Your task to perform on an android device: Add razer blade to the cart on costco, then select checkout. Image 0: 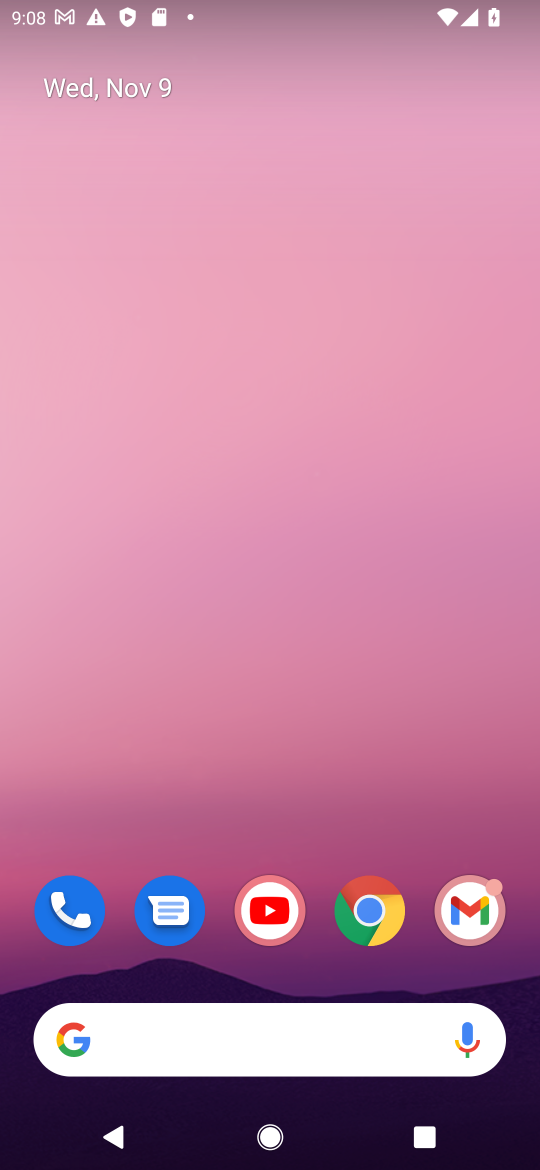
Step 0: click (374, 916)
Your task to perform on an android device: Add razer blade to the cart on costco, then select checkout. Image 1: 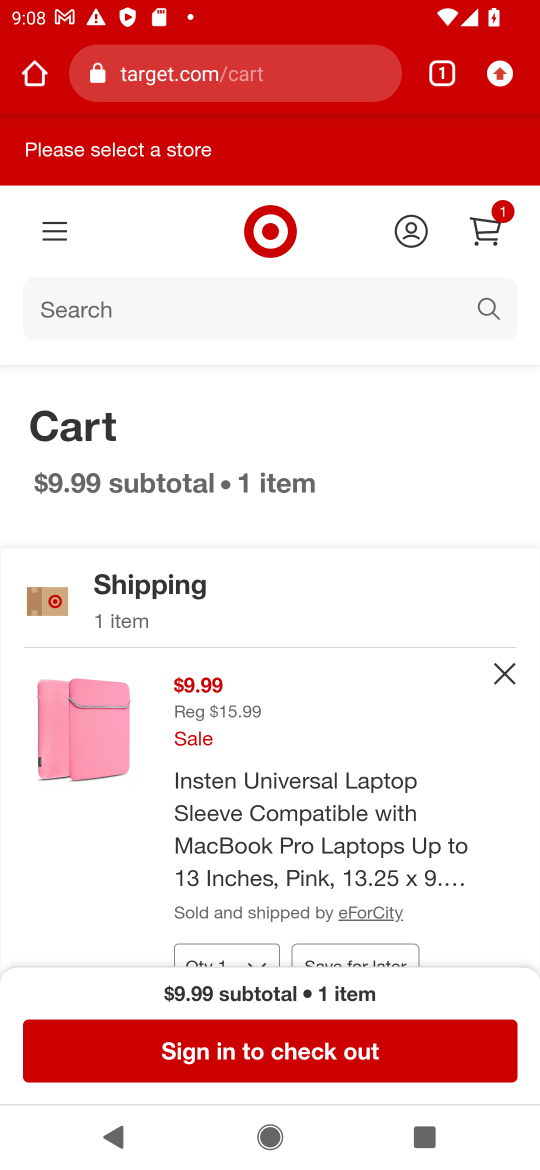
Step 1: click (235, 68)
Your task to perform on an android device: Add razer blade to the cart on costco, then select checkout. Image 2: 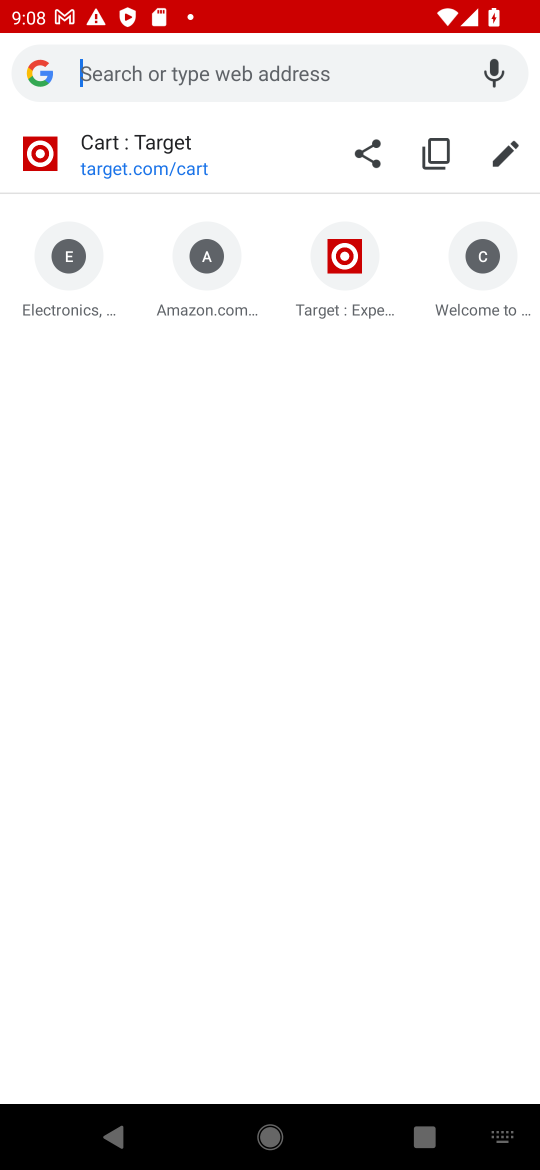
Step 2: type "costco.com"
Your task to perform on an android device: Add razer blade to the cart on costco, then select checkout. Image 3: 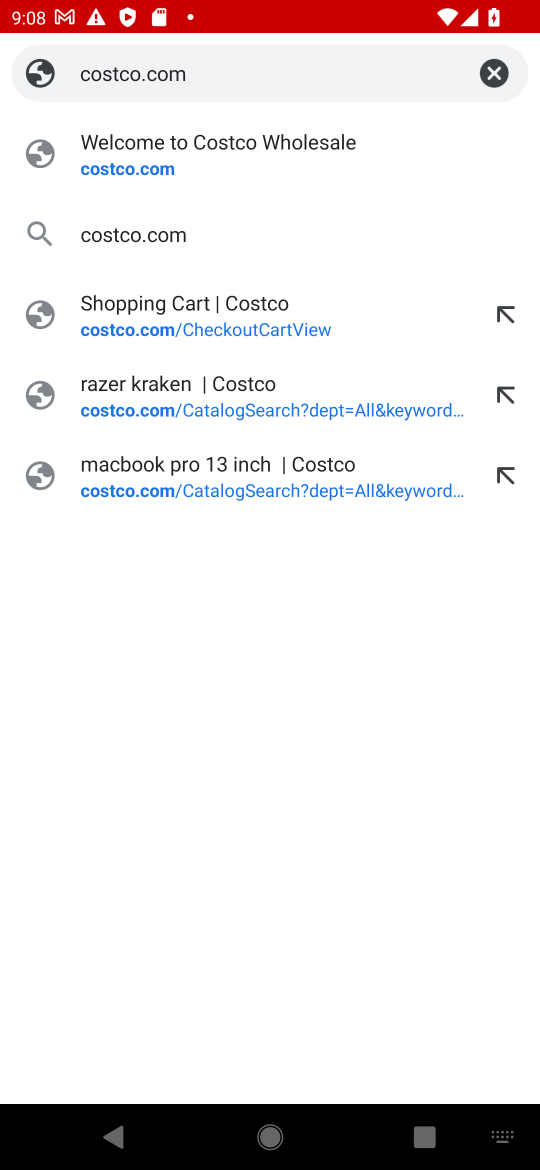
Step 3: click (115, 175)
Your task to perform on an android device: Add razer blade to the cart on costco, then select checkout. Image 4: 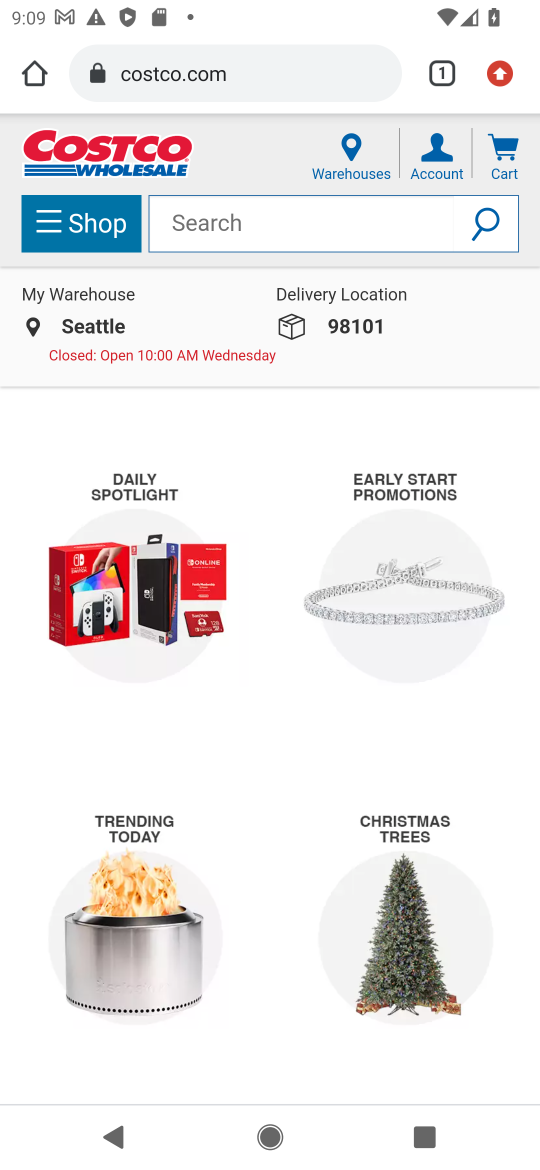
Step 4: click (225, 218)
Your task to perform on an android device: Add razer blade to the cart on costco, then select checkout. Image 5: 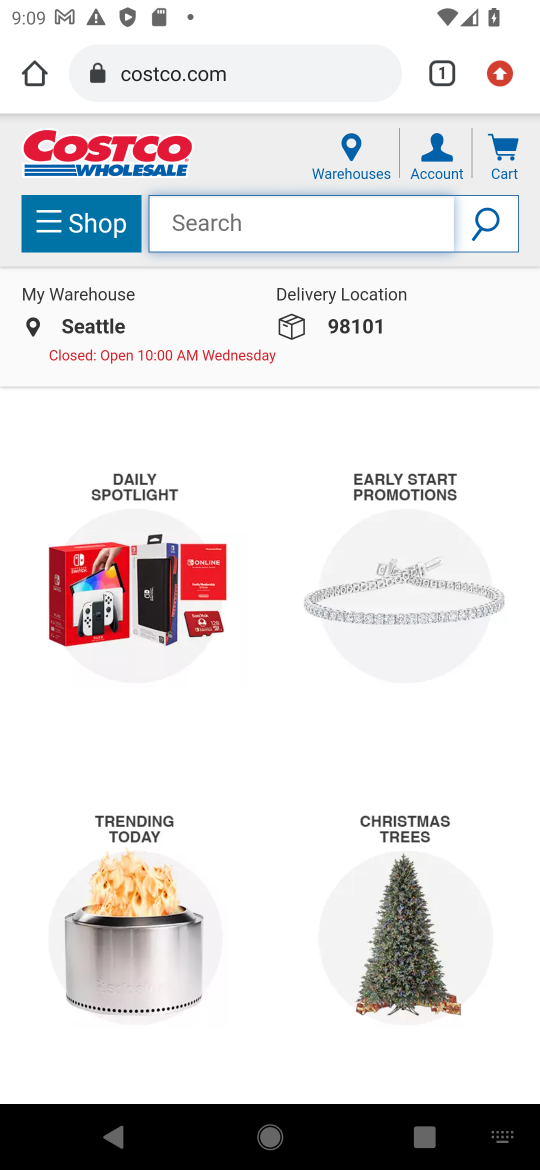
Step 5: type "razer blade"
Your task to perform on an android device: Add razer blade to the cart on costco, then select checkout. Image 6: 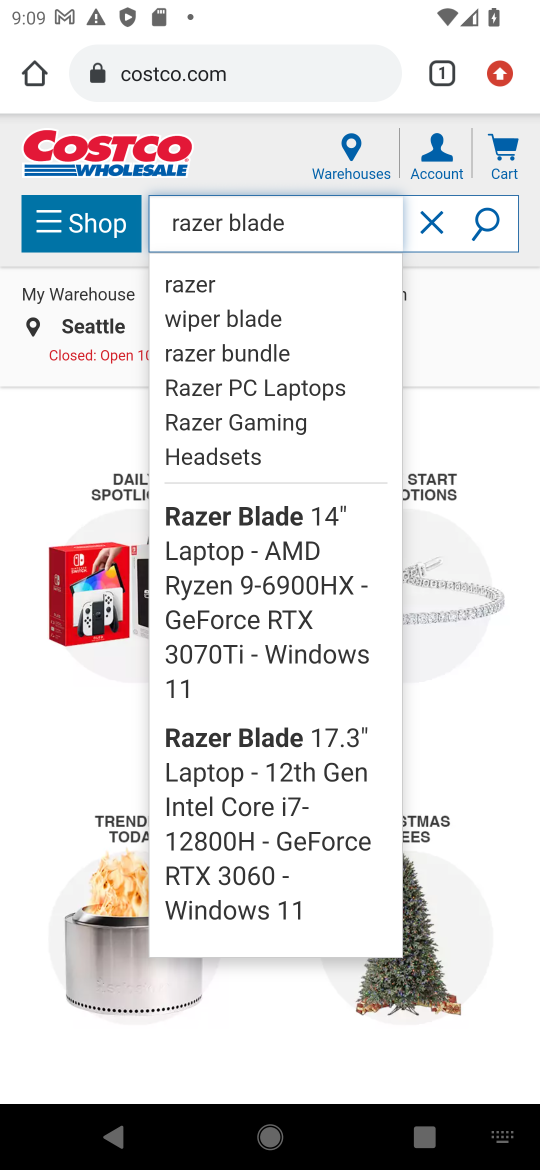
Step 6: click (480, 227)
Your task to perform on an android device: Add razer blade to the cart on costco, then select checkout. Image 7: 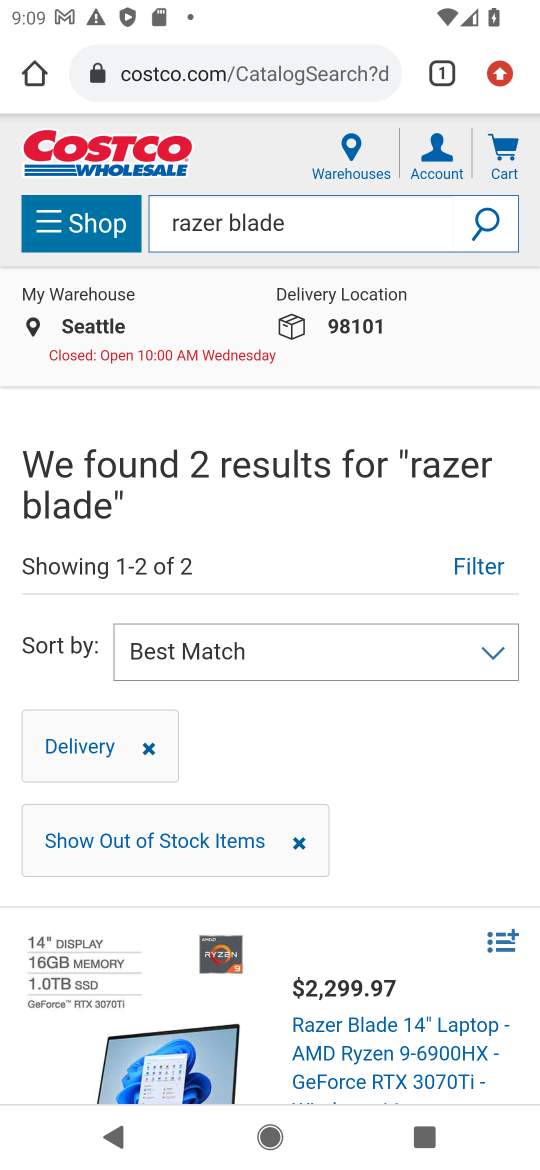
Step 7: drag from (260, 785) to (260, 516)
Your task to perform on an android device: Add razer blade to the cart on costco, then select checkout. Image 8: 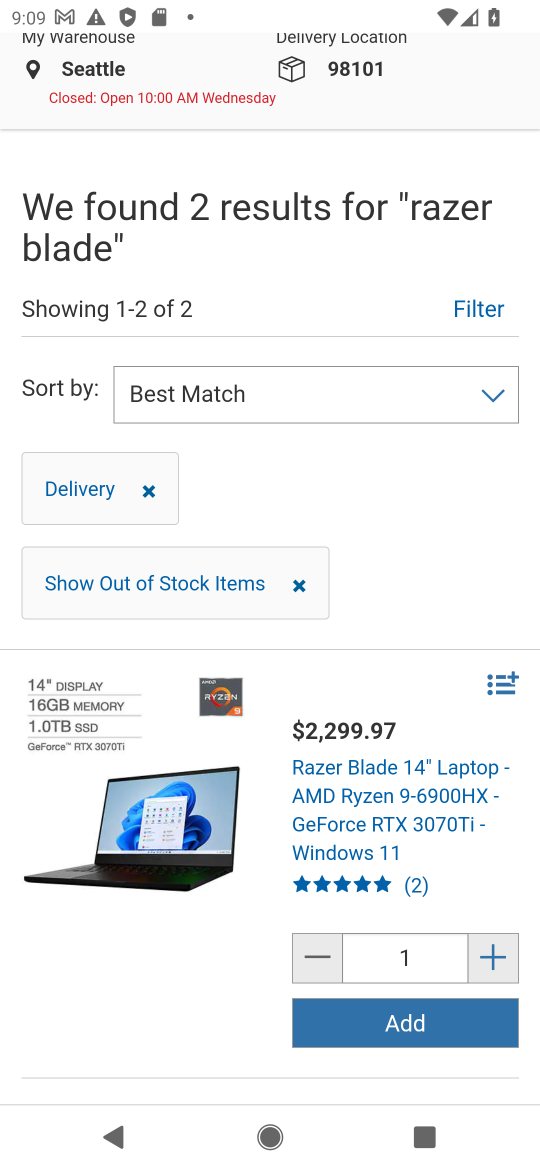
Step 8: click (334, 846)
Your task to perform on an android device: Add razer blade to the cart on costco, then select checkout. Image 9: 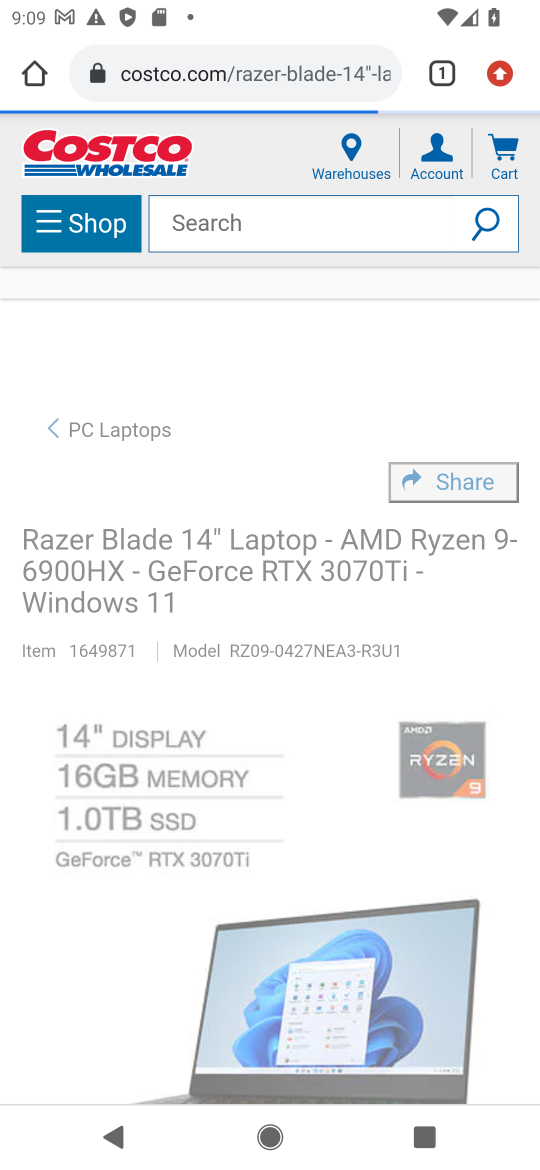
Step 9: drag from (322, 903) to (303, 424)
Your task to perform on an android device: Add razer blade to the cart on costco, then select checkout. Image 10: 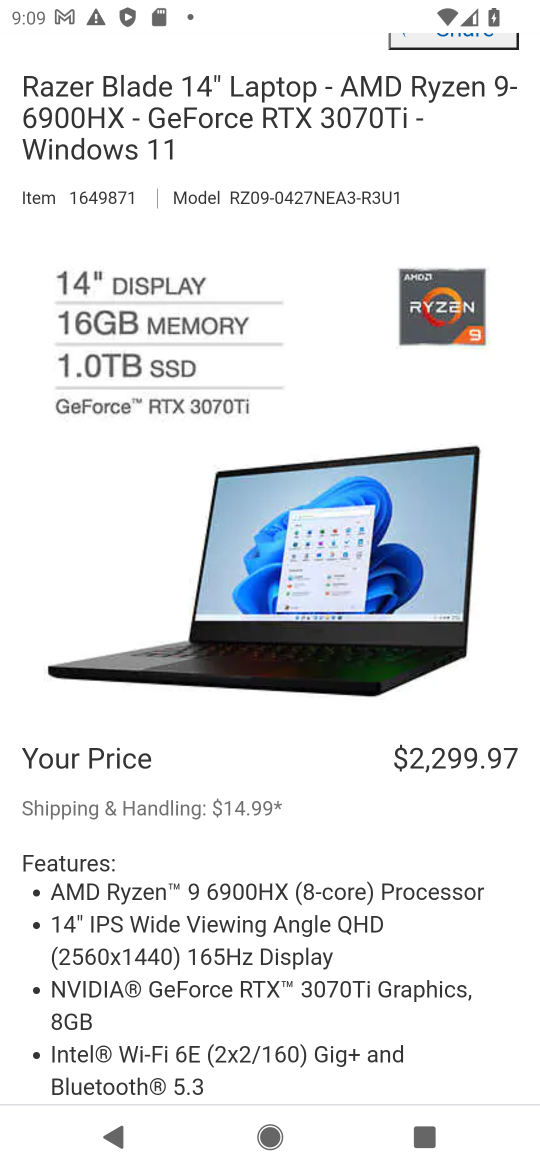
Step 10: drag from (307, 903) to (295, 460)
Your task to perform on an android device: Add razer blade to the cart on costco, then select checkout. Image 11: 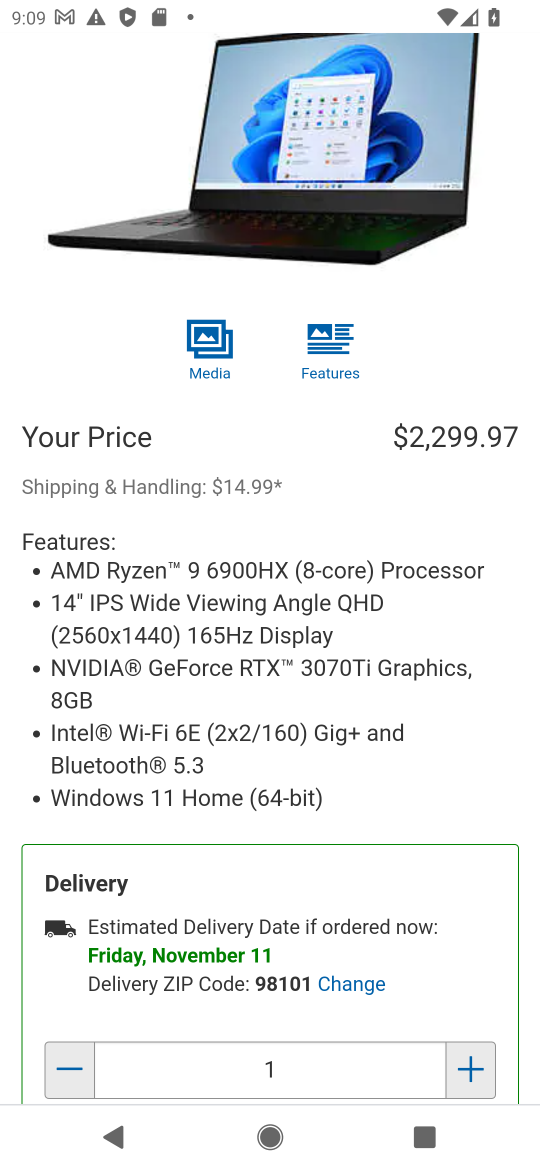
Step 11: drag from (340, 920) to (330, 512)
Your task to perform on an android device: Add razer blade to the cart on costco, then select checkout. Image 12: 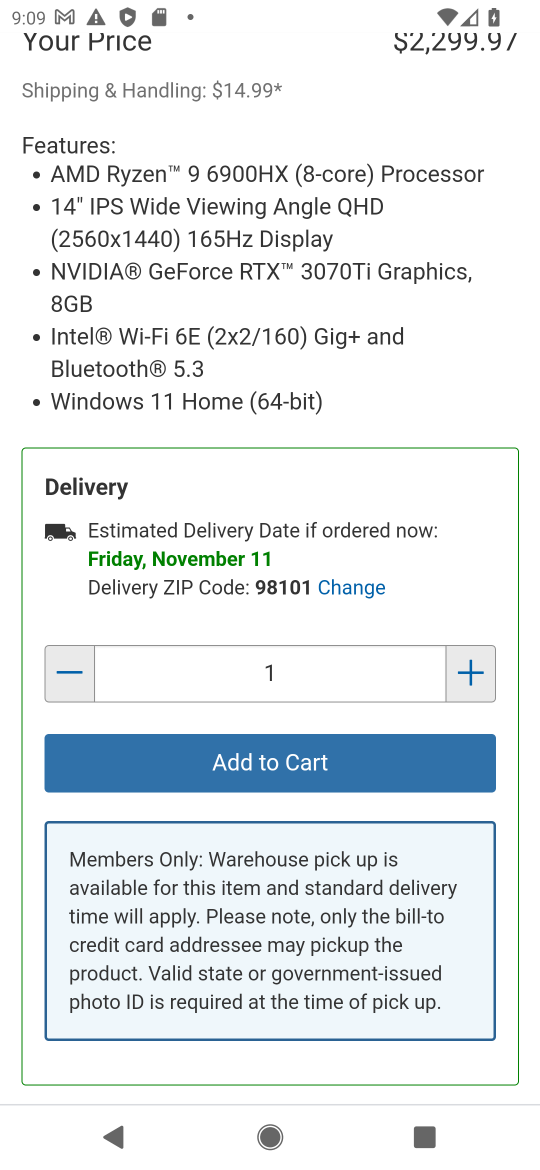
Step 12: click (259, 771)
Your task to perform on an android device: Add razer blade to the cart on costco, then select checkout. Image 13: 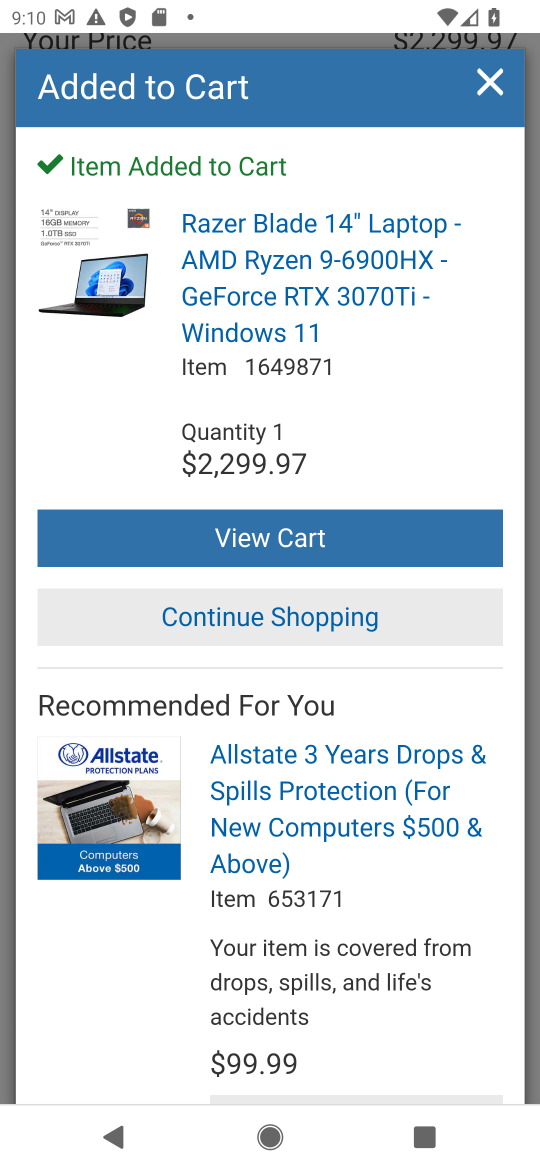
Step 13: click (254, 533)
Your task to perform on an android device: Add razer blade to the cart on costco, then select checkout. Image 14: 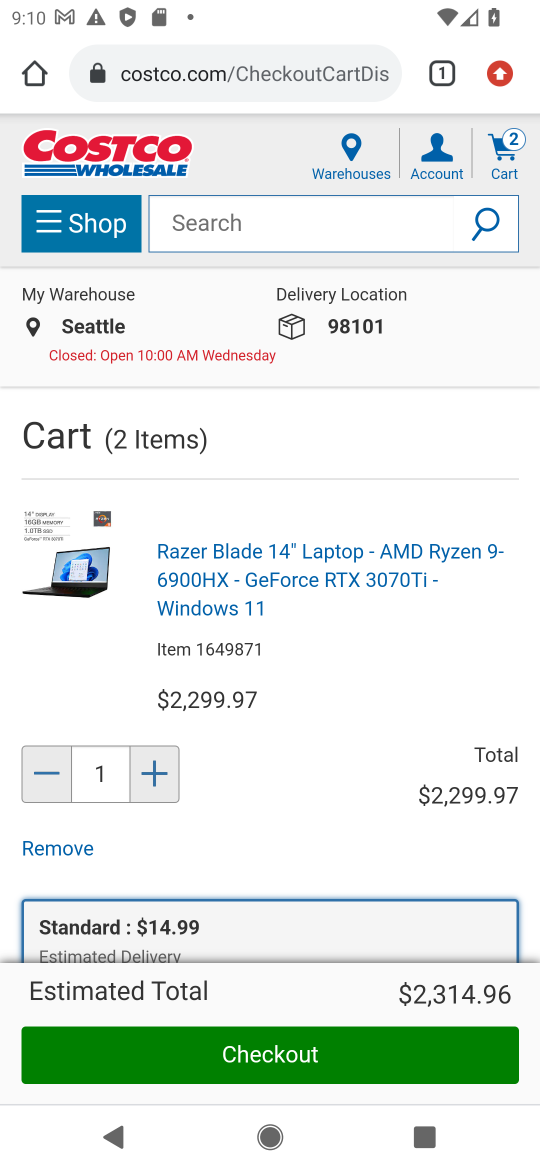
Step 14: click (277, 1051)
Your task to perform on an android device: Add razer blade to the cart on costco, then select checkout. Image 15: 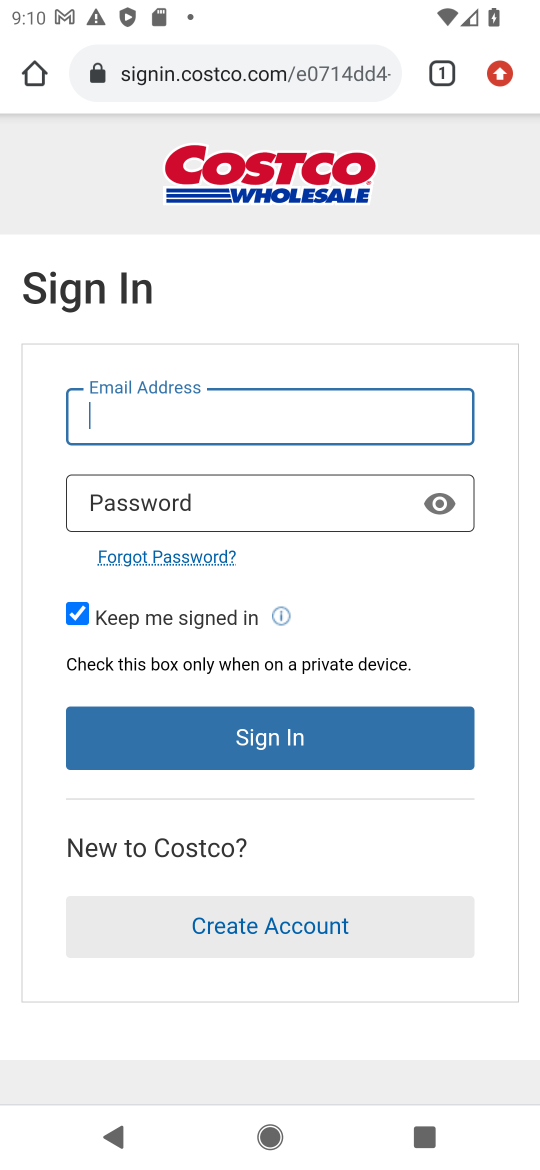
Step 15: task complete